Your task to perform on an android device: Open notification settings Image 0: 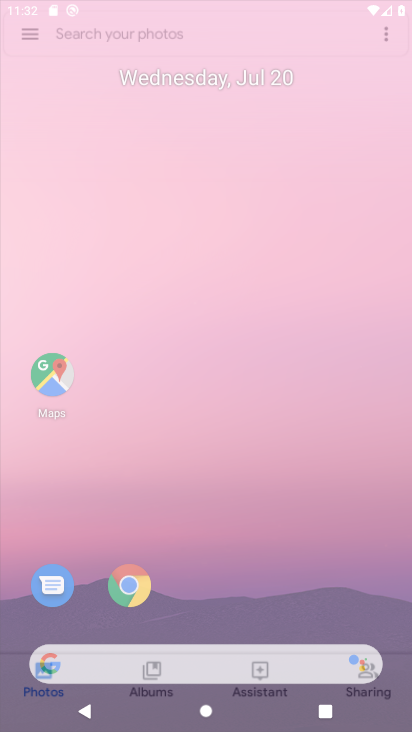
Step 0: press home button
Your task to perform on an android device: Open notification settings Image 1: 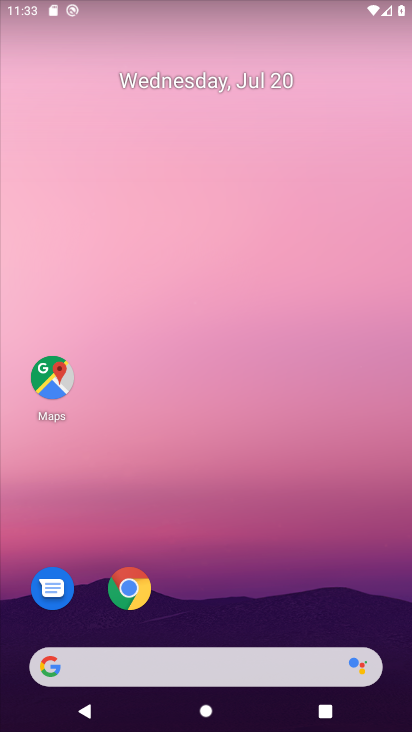
Step 1: drag from (236, 618) to (259, 38)
Your task to perform on an android device: Open notification settings Image 2: 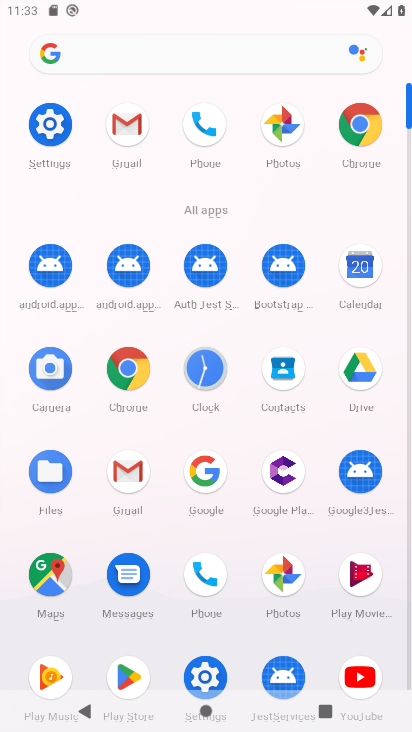
Step 2: click (46, 119)
Your task to perform on an android device: Open notification settings Image 3: 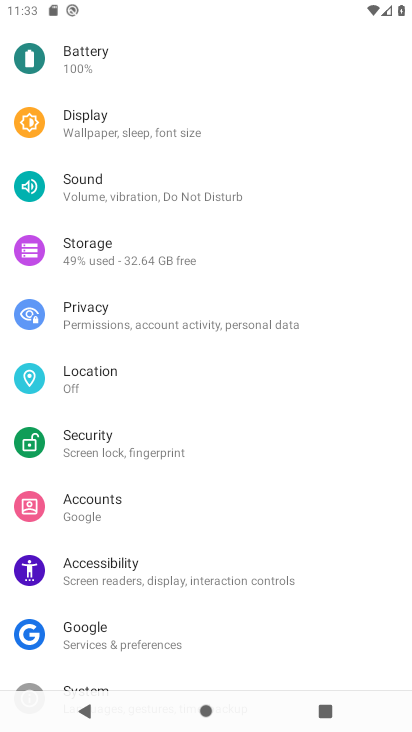
Step 3: drag from (143, 62) to (189, 568)
Your task to perform on an android device: Open notification settings Image 4: 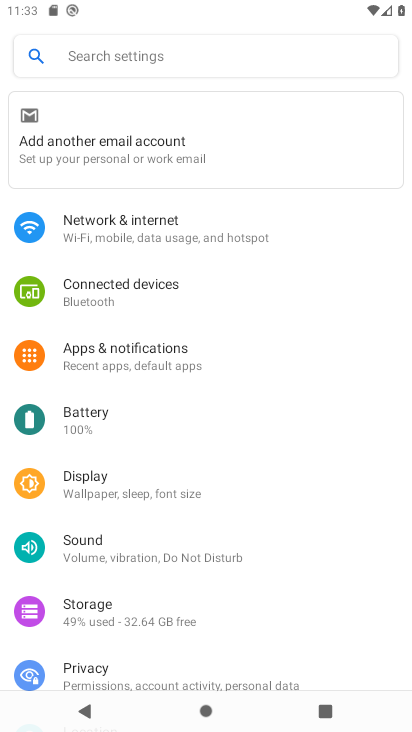
Step 4: click (216, 346)
Your task to perform on an android device: Open notification settings Image 5: 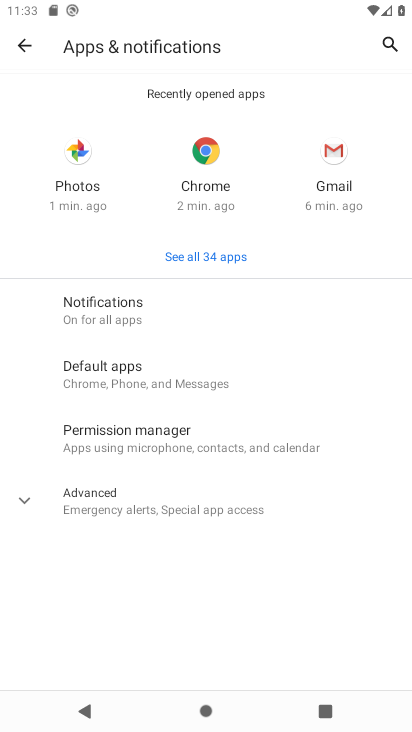
Step 5: click (156, 305)
Your task to perform on an android device: Open notification settings Image 6: 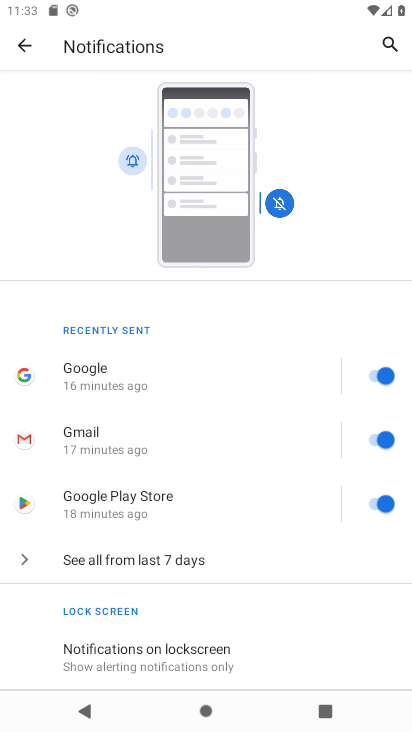
Step 6: drag from (229, 608) to (233, 166)
Your task to perform on an android device: Open notification settings Image 7: 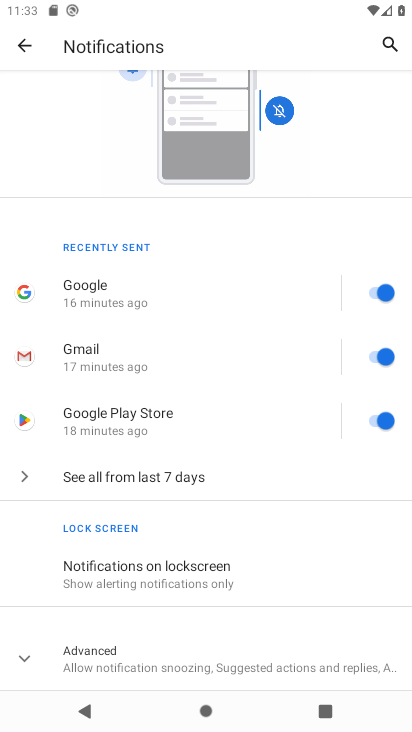
Step 7: click (24, 651)
Your task to perform on an android device: Open notification settings Image 8: 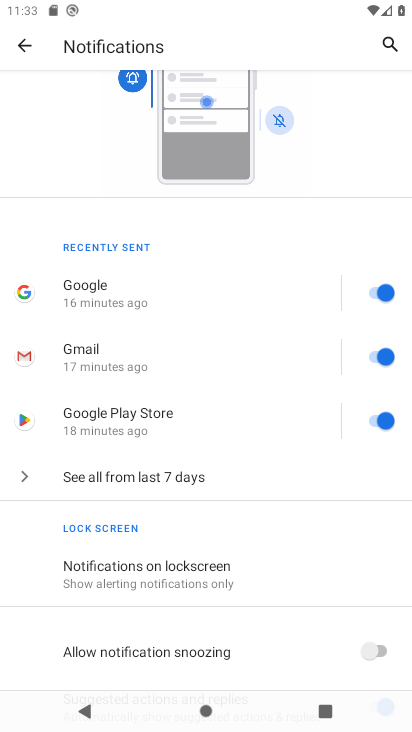
Step 8: task complete